Your task to perform on an android device: Open the phone app and click the voicemail tab. Image 0: 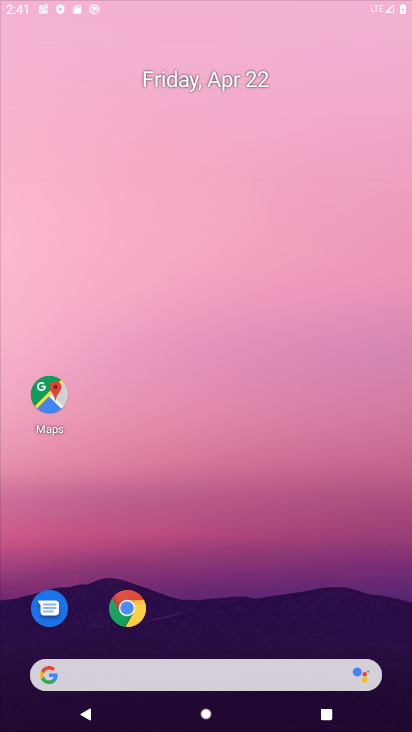
Step 0: click (211, 68)
Your task to perform on an android device: Open the phone app and click the voicemail tab. Image 1: 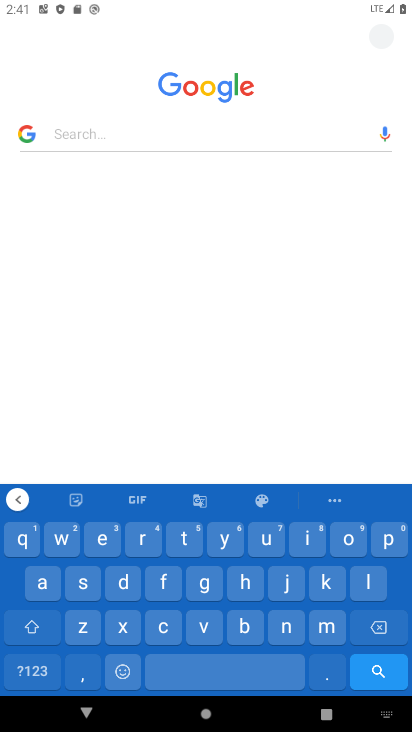
Step 1: press back button
Your task to perform on an android device: Open the phone app and click the voicemail tab. Image 2: 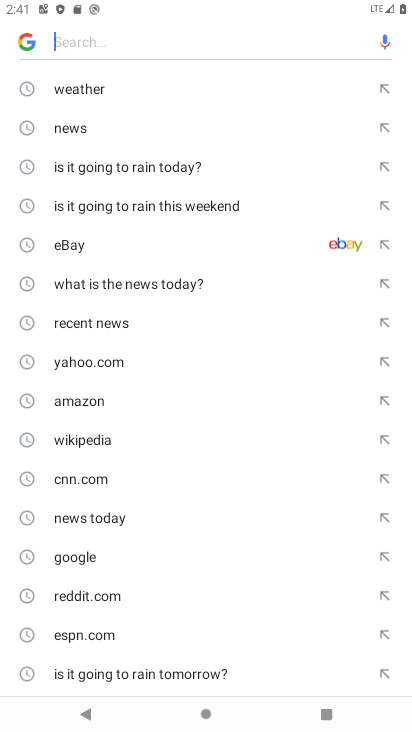
Step 2: press back button
Your task to perform on an android device: Open the phone app and click the voicemail tab. Image 3: 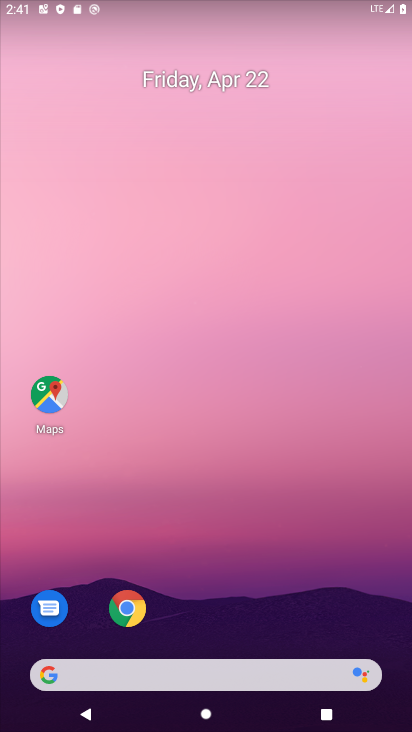
Step 3: drag from (270, 699) to (312, 150)
Your task to perform on an android device: Open the phone app and click the voicemail tab. Image 4: 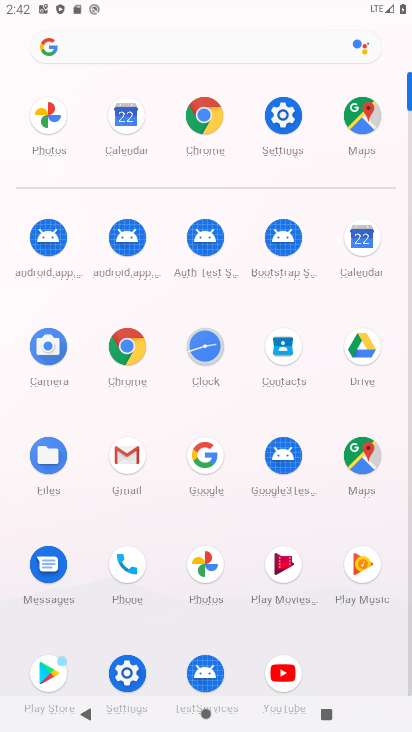
Step 4: click (123, 563)
Your task to perform on an android device: Open the phone app and click the voicemail tab. Image 5: 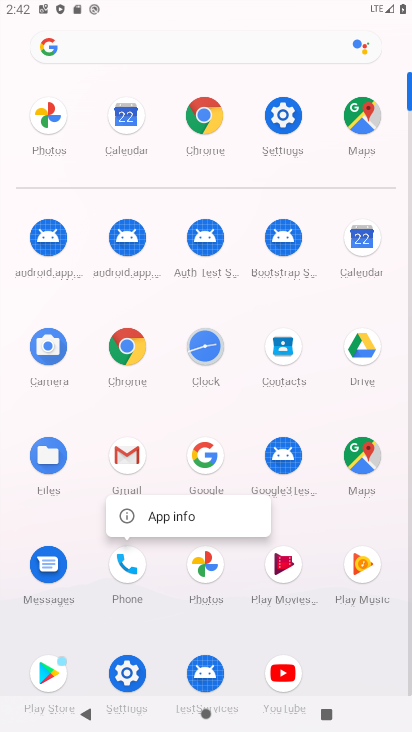
Step 5: click (124, 568)
Your task to perform on an android device: Open the phone app and click the voicemail tab. Image 6: 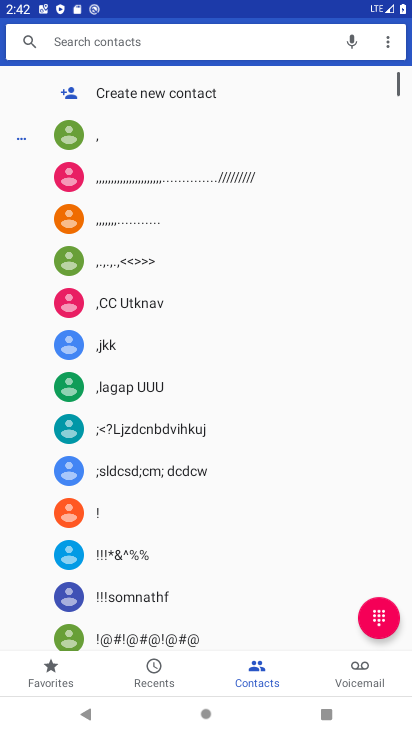
Step 6: click (358, 674)
Your task to perform on an android device: Open the phone app and click the voicemail tab. Image 7: 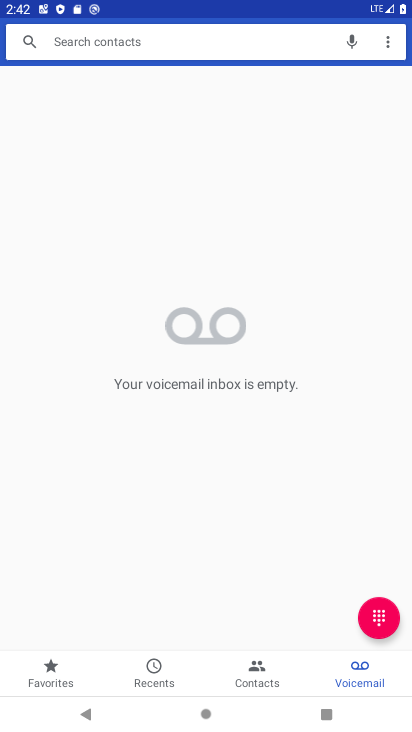
Step 7: task complete